Your task to perform on an android device: delete a single message in the gmail app Image 0: 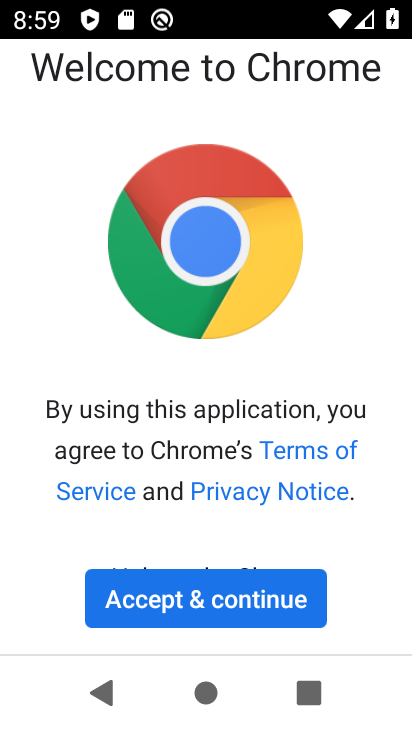
Step 0: click (203, 608)
Your task to perform on an android device: delete a single message in the gmail app Image 1: 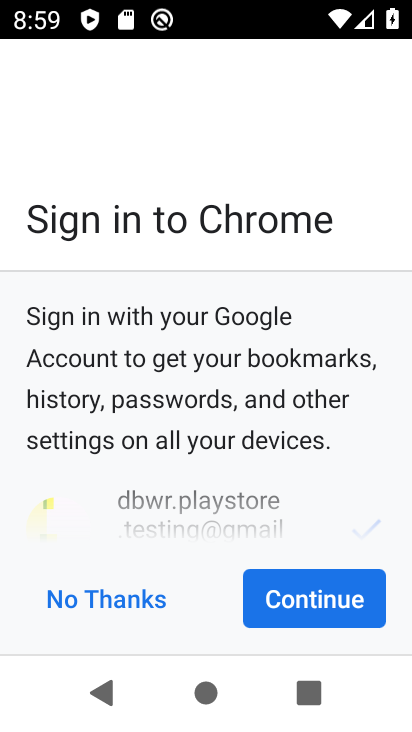
Step 1: click (277, 605)
Your task to perform on an android device: delete a single message in the gmail app Image 2: 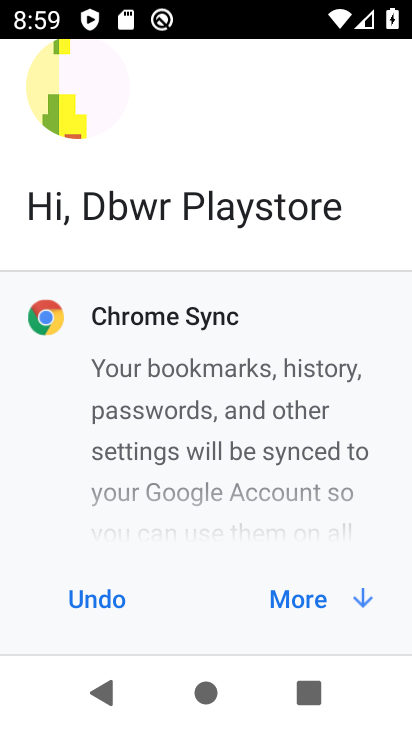
Step 2: click (277, 605)
Your task to perform on an android device: delete a single message in the gmail app Image 3: 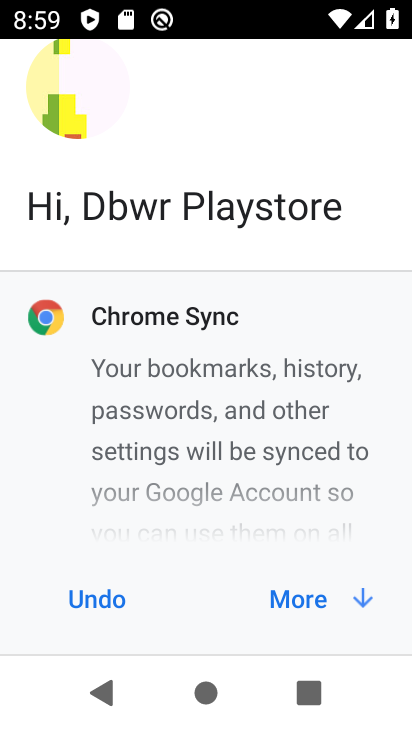
Step 3: click (277, 605)
Your task to perform on an android device: delete a single message in the gmail app Image 4: 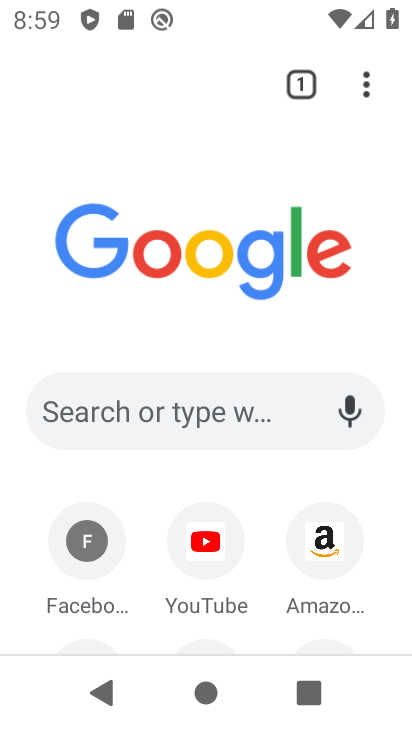
Step 4: press back button
Your task to perform on an android device: delete a single message in the gmail app Image 5: 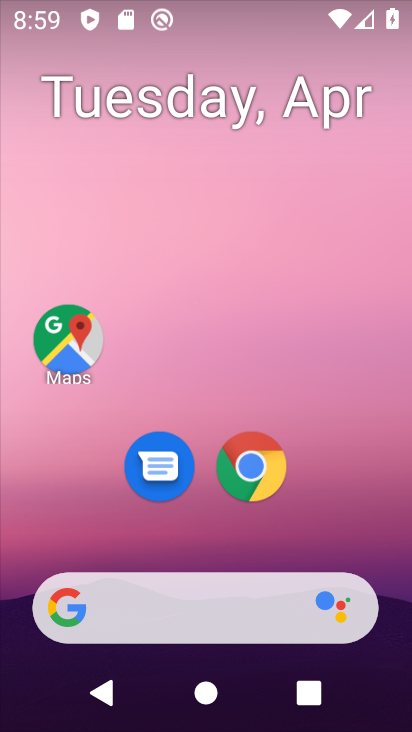
Step 5: drag from (347, 531) to (322, 49)
Your task to perform on an android device: delete a single message in the gmail app Image 6: 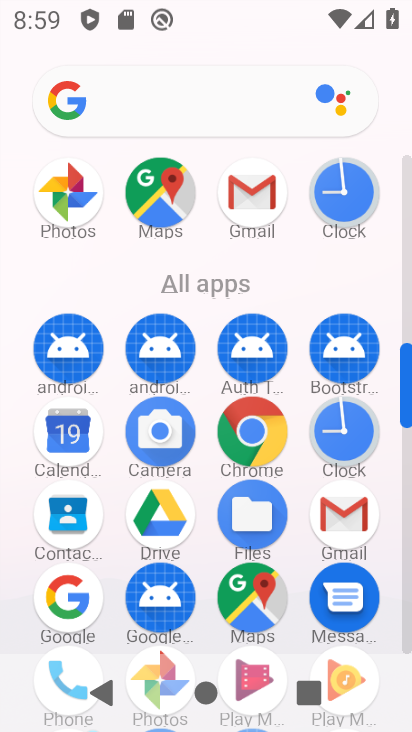
Step 6: click (251, 182)
Your task to perform on an android device: delete a single message in the gmail app Image 7: 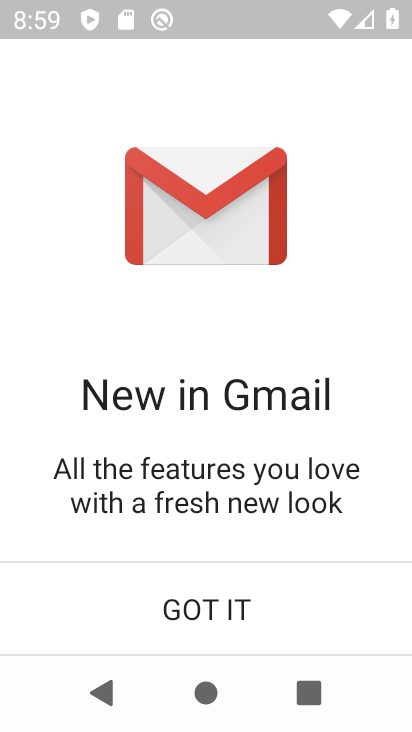
Step 7: click (238, 587)
Your task to perform on an android device: delete a single message in the gmail app Image 8: 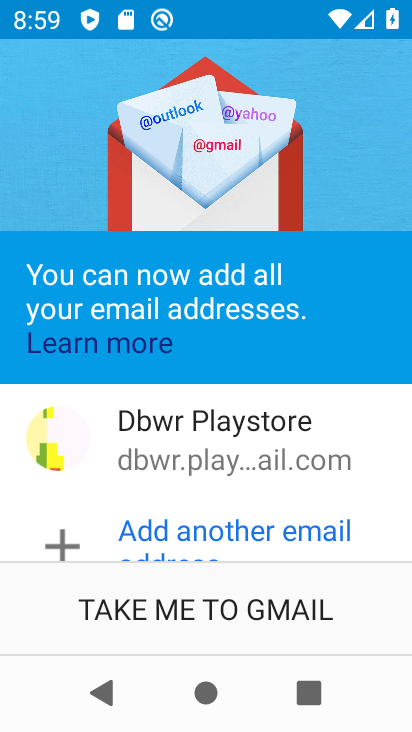
Step 8: click (178, 600)
Your task to perform on an android device: delete a single message in the gmail app Image 9: 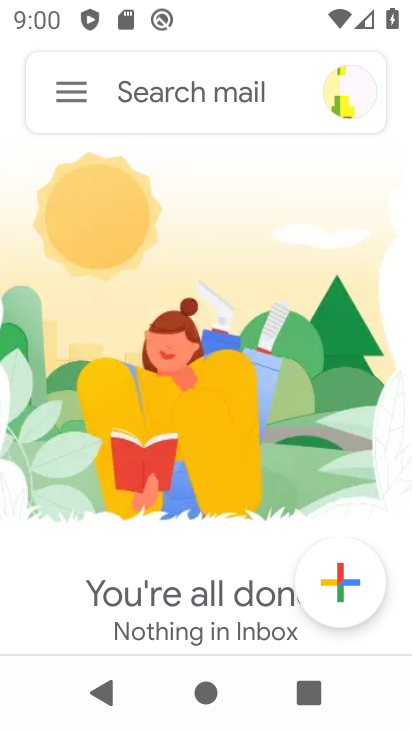
Step 9: click (68, 117)
Your task to perform on an android device: delete a single message in the gmail app Image 10: 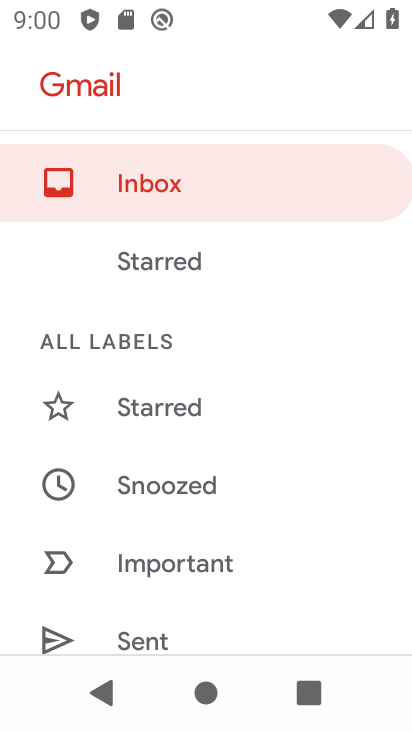
Step 10: drag from (199, 488) to (236, 298)
Your task to perform on an android device: delete a single message in the gmail app Image 11: 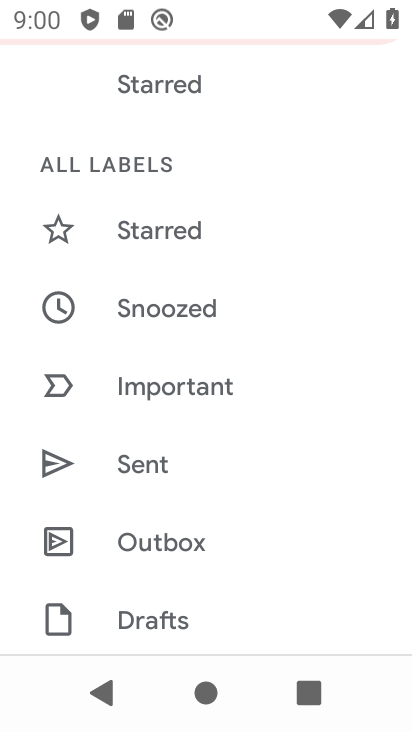
Step 11: drag from (215, 540) to (257, 337)
Your task to perform on an android device: delete a single message in the gmail app Image 12: 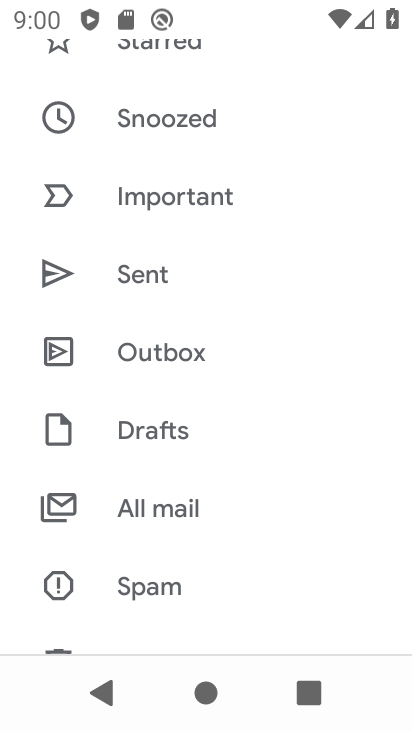
Step 12: click (202, 516)
Your task to perform on an android device: delete a single message in the gmail app Image 13: 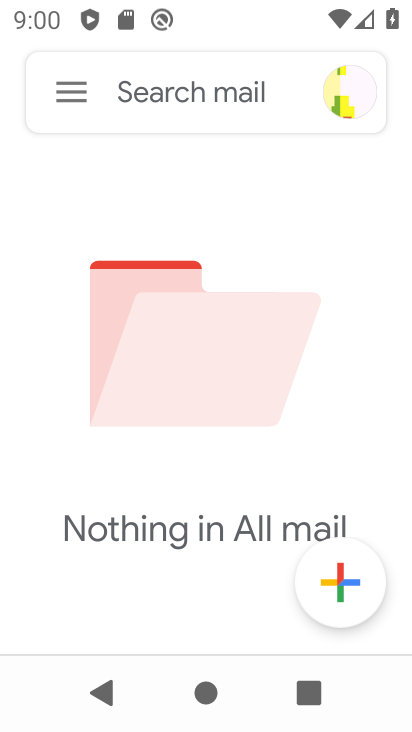
Step 13: task complete